Your task to perform on an android device: Search for pizza restaurants on Maps Image 0: 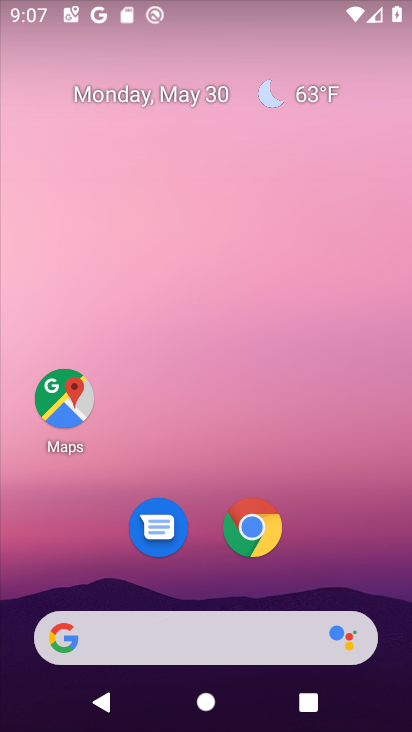
Step 0: click (73, 380)
Your task to perform on an android device: Search for pizza restaurants on Maps Image 1: 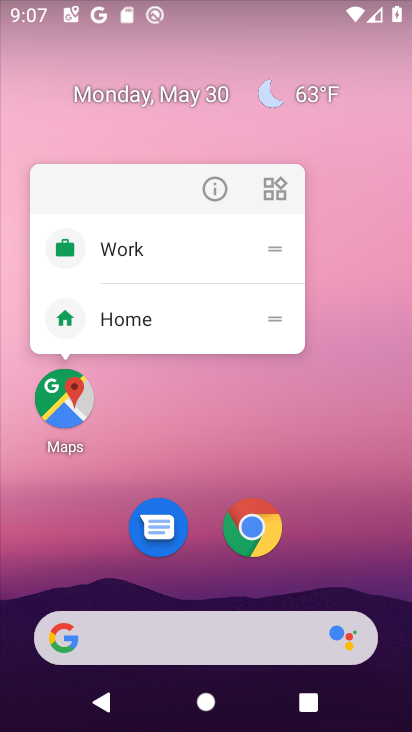
Step 1: click (78, 396)
Your task to perform on an android device: Search for pizza restaurants on Maps Image 2: 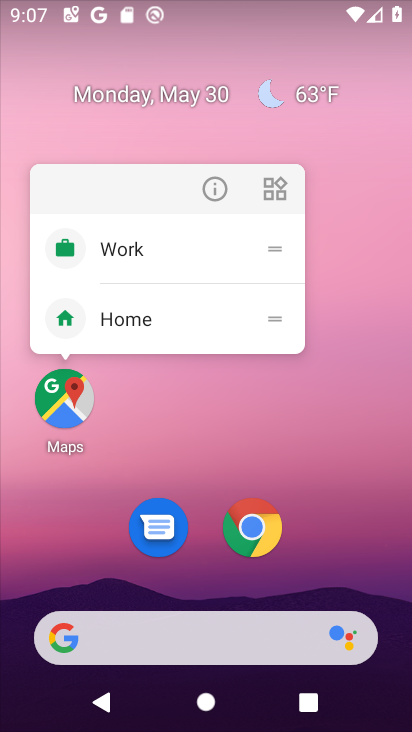
Step 2: click (71, 394)
Your task to perform on an android device: Search for pizza restaurants on Maps Image 3: 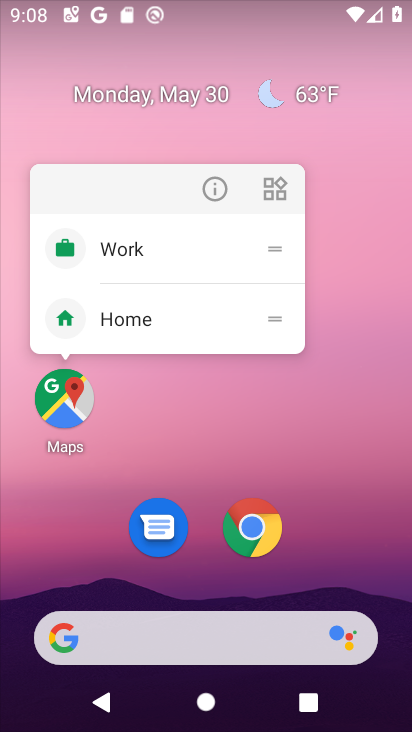
Step 3: click (69, 382)
Your task to perform on an android device: Search for pizza restaurants on Maps Image 4: 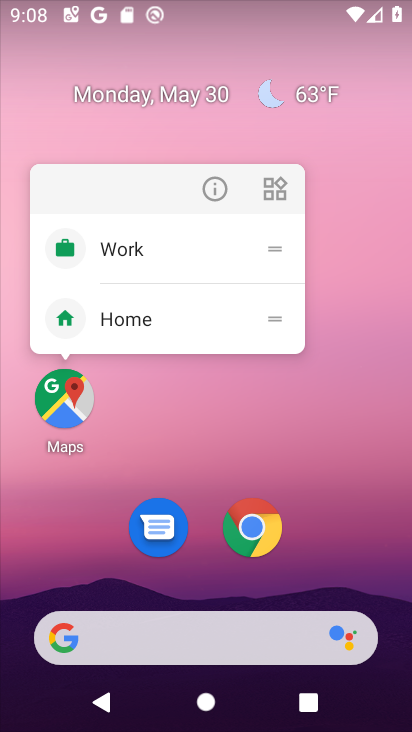
Step 4: click (68, 382)
Your task to perform on an android device: Search for pizza restaurants on Maps Image 5: 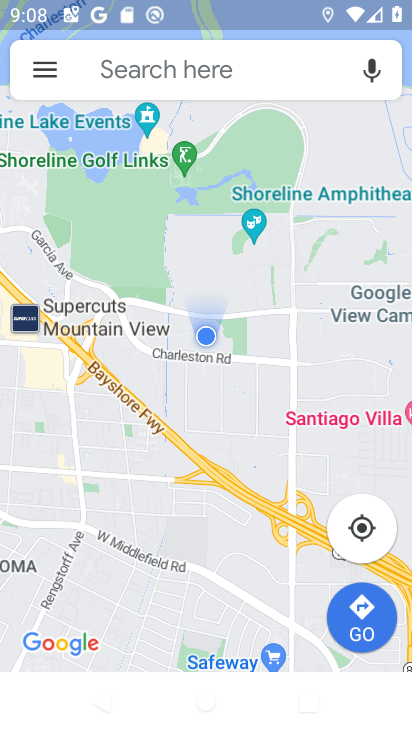
Step 5: click (168, 64)
Your task to perform on an android device: Search for pizza restaurants on Maps Image 6: 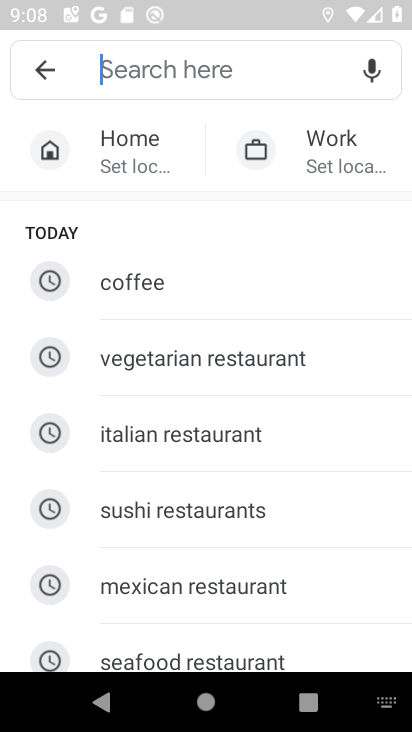
Step 6: drag from (194, 571) to (212, 358)
Your task to perform on an android device: Search for pizza restaurants on Maps Image 7: 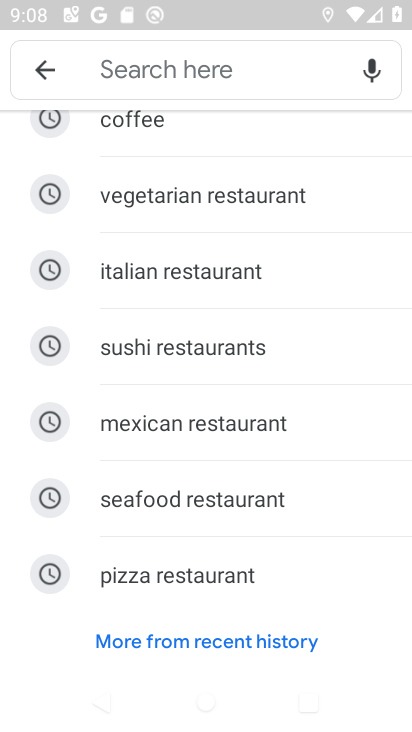
Step 7: click (160, 580)
Your task to perform on an android device: Search for pizza restaurants on Maps Image 8: 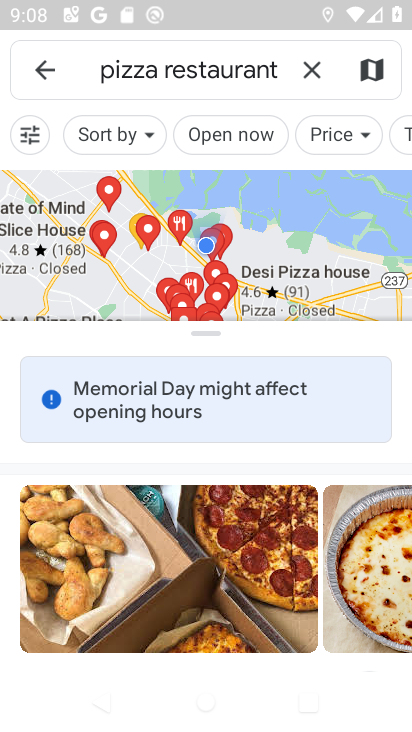
Step 8: task complete